Your task to perform on an android device: show emergency info Image 0: 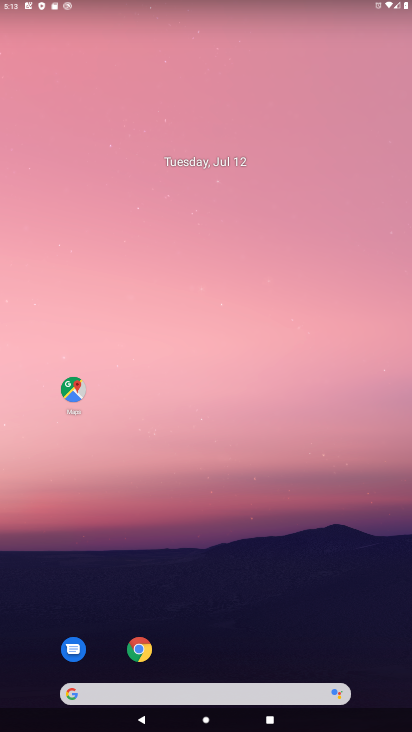
Step 0: drag from (219, 695) to (231, 106)
Your task to perform on an android device: show emergency info Image 1: 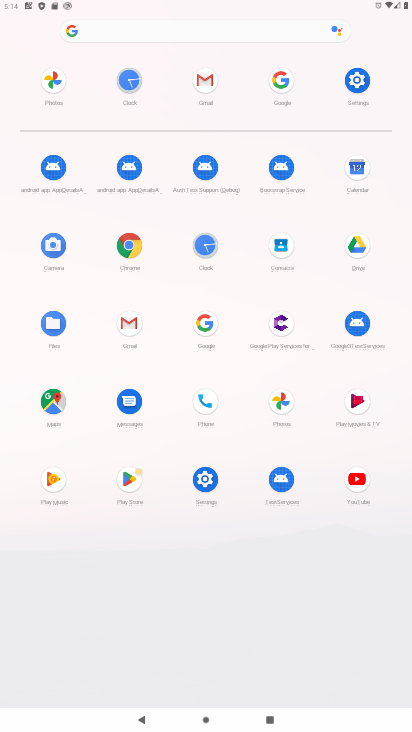
Step 1: click (207, 480)
Your task to perform on an android device: show emergency info Image 2: 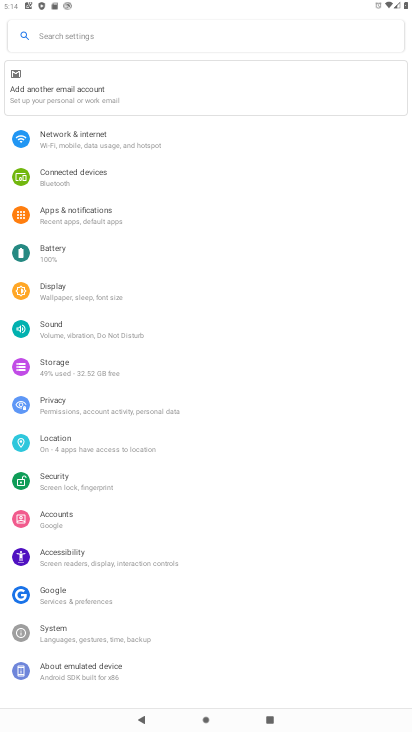
Step 2: drag from (104, 581) to (138, 526)
Your task to perform on an android device: show emergency info Image 3: 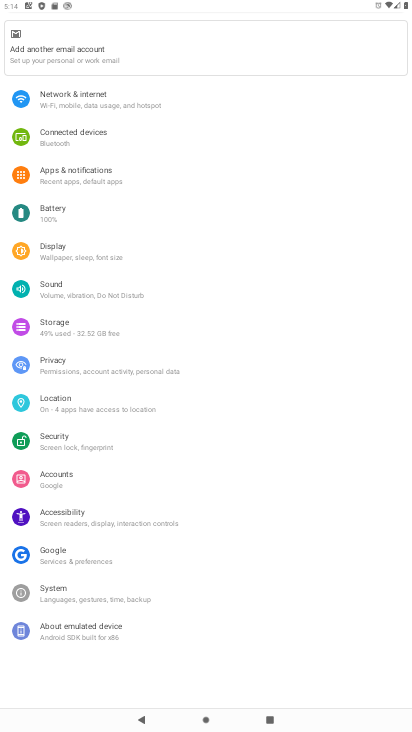
Step 3: click (75, 624)
Your task to perform on an android device: show emergency info Image 4: 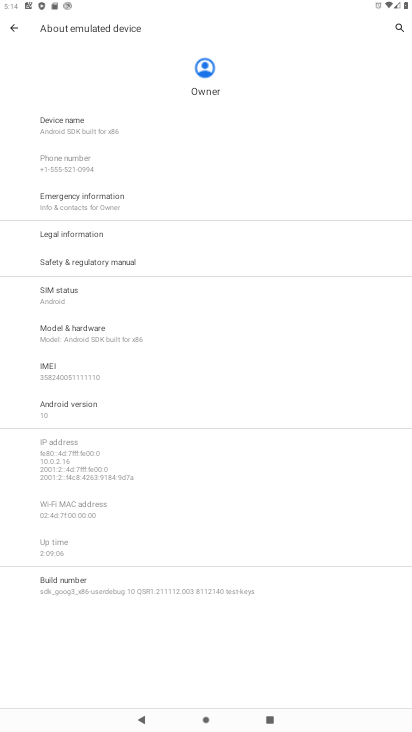
Step 4: click (104, 206)
Your task to perform on an android device: show emergency info Image 5: 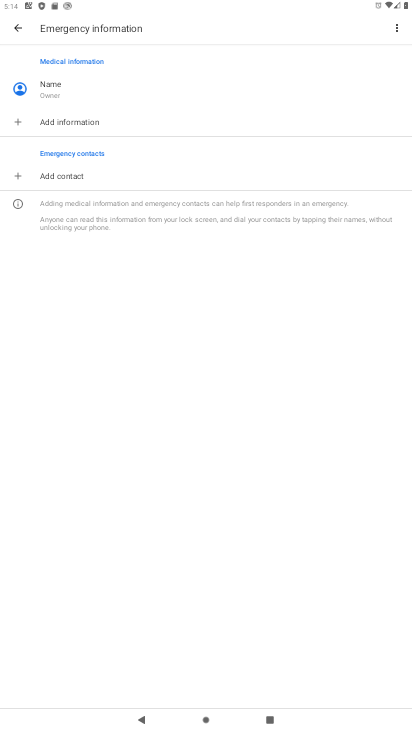
Step 5: task complete